Your task to perform on an android device: create a new album in the google photos Image 0: 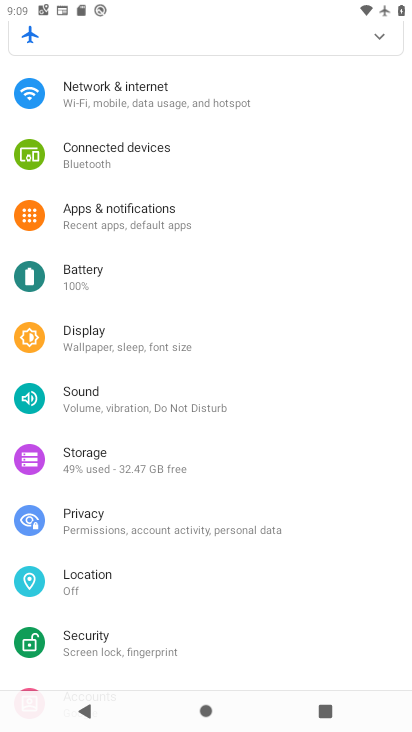
Step 0: press home button
Your task to perform on an android device: create a new album in the google photos Image 1: 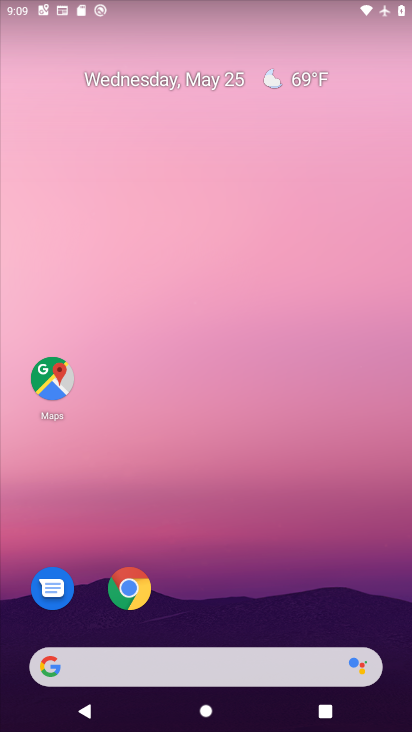
Step 1: drag from (362, 605) to (364, 198)
Your task to perform on an android device: create a new album in the google photos Image 2: 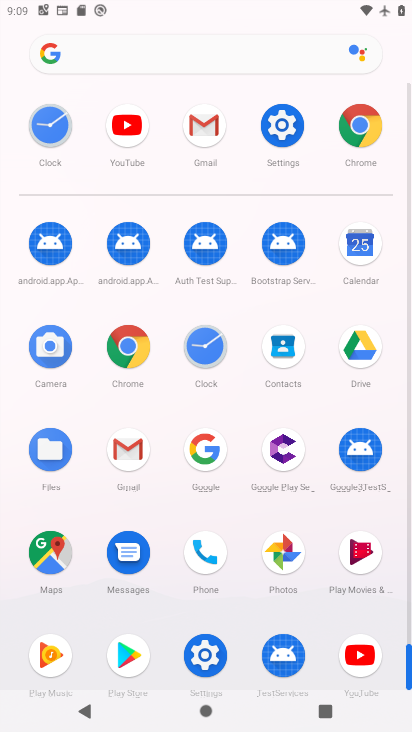
Step 2: click (296, 560)
Your task to perform on an android device: create a new album in the google photos Image 3: 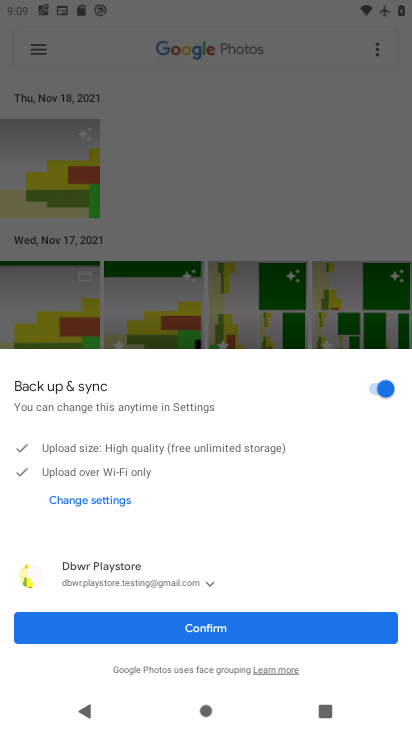
Step 3: click (244, 631)
Your task to perform on an android device: create a new album in the google photos Image 4: 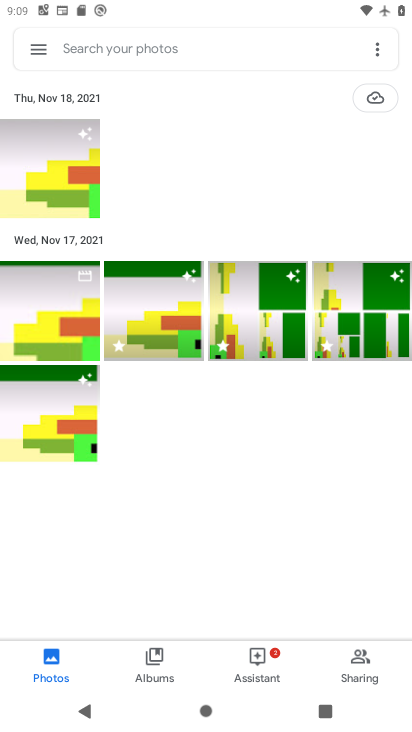
Step 4: click (377, 52)
Your task to perform on an android device: create a new album in the google photos Image 5: 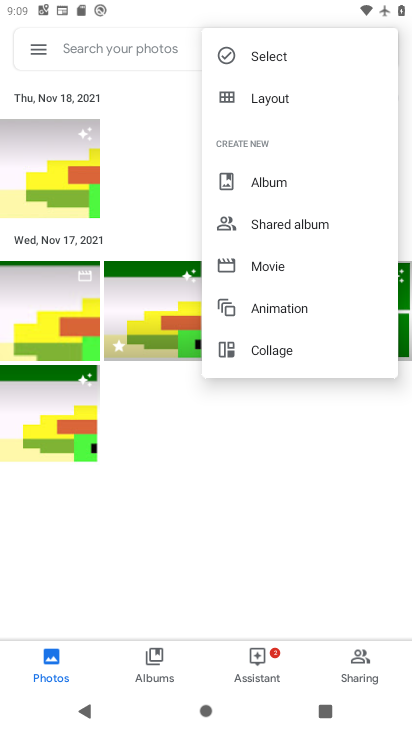
Step 5: click (279, 181)
Your task to perform on an android device: create a new album in the google photos Image 6: 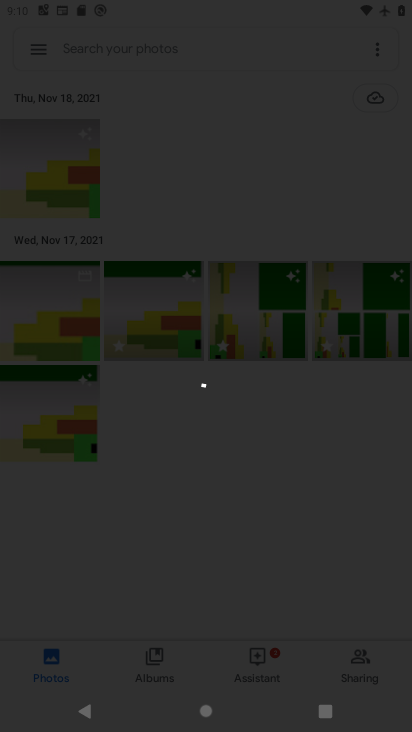
Step 6: task complete